Your task to perform on an android device: see sites visited before in the chrome app Image 0: 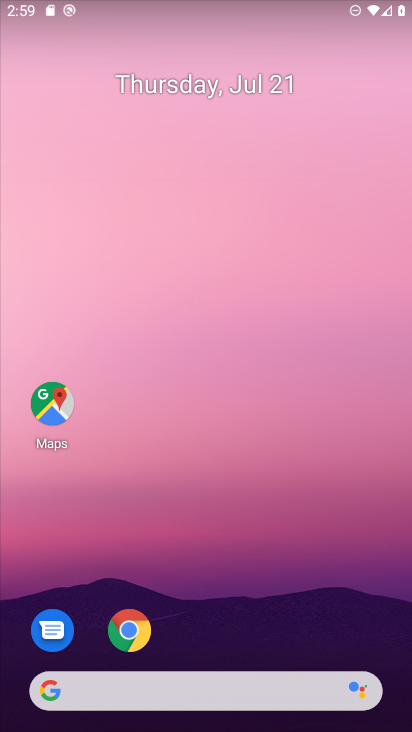
Step 0: click (125, 619)
Your task to perform on an android device: see sites visited before in the chrome app Image 1: 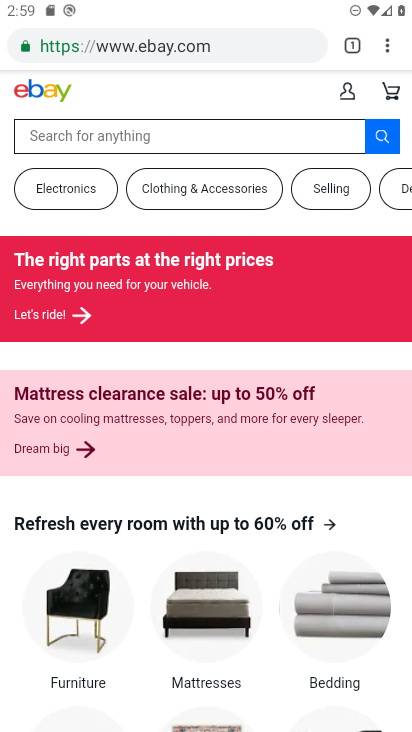
Step 1: task complete